Your task to perform on an android device: make emails show in primary in the gmail app Image 0: 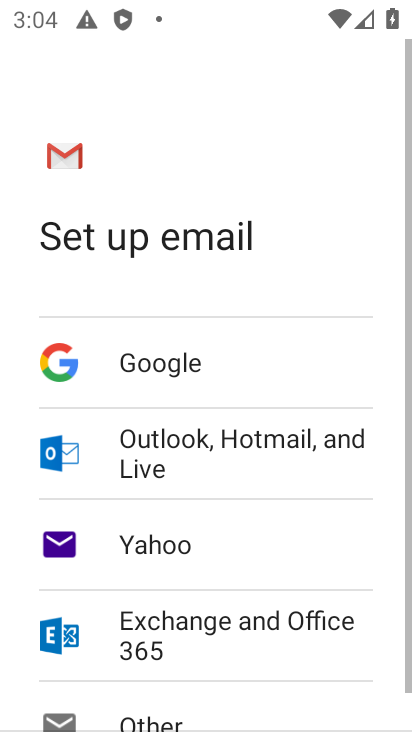
Step 0: press home button
Your task to perform on an android device: make emails show in primary in the gmail app Image 1: 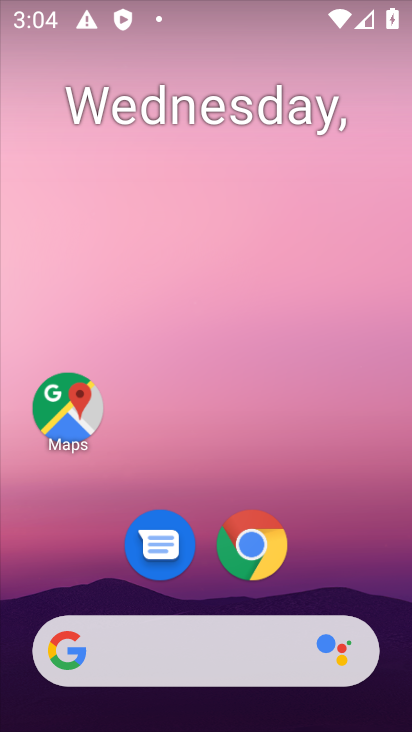
Step 1: drag from (224, 616) to (236, 221)
Your task to perform on an android device: make emails show in primary in the gmail app Image 2: 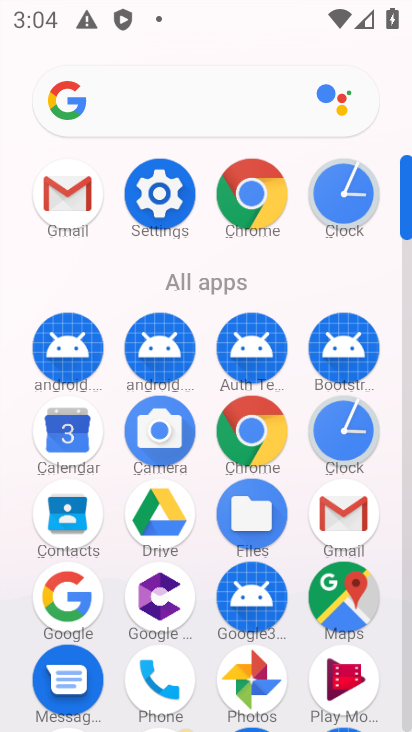
Step 2: click (37, 189)
Your task to perform on an android device: make emails show in primary in the gmail app Image 3: 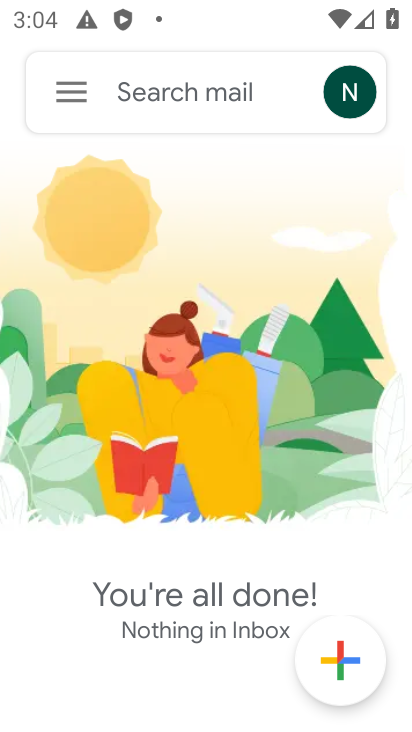
Step 3: click (64, 122)
Your task to perform on an android device: make emails show in primary in the gmail app Image 4: 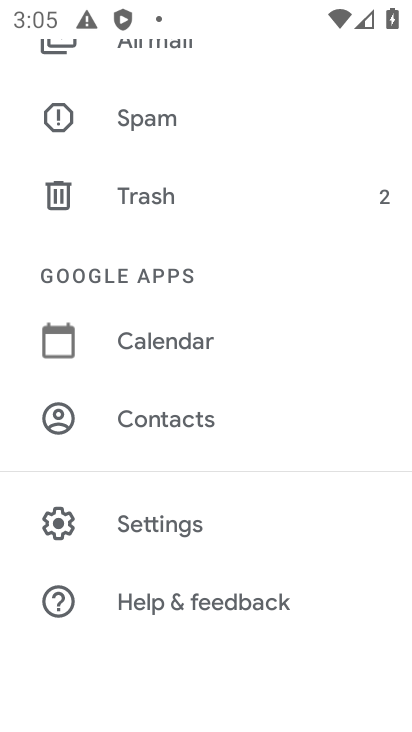
Step 4: click (156, 517)
Your task to perform on an android device: make emails show in primary in the gmail app Image 5: 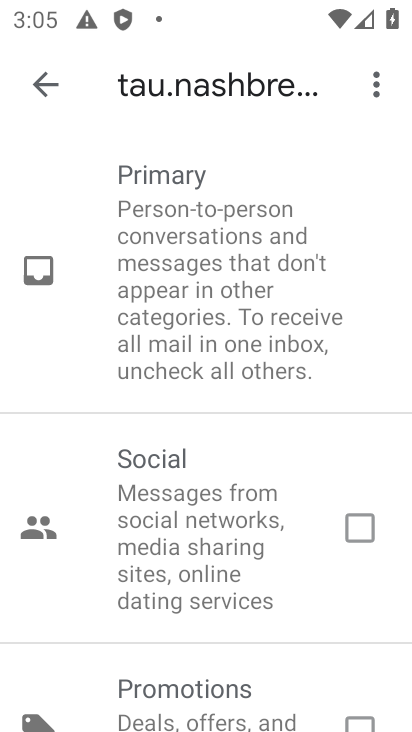
Step 5: click (217, 273)
Your task to perform on an android device: make emails show in primary in the gmail app Image 6: 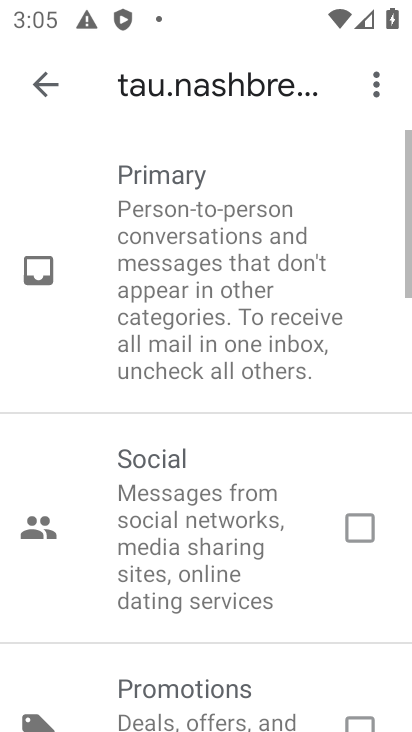
Step 6: task complete